Your task to perform on an android device: Open Amazon Image 0: 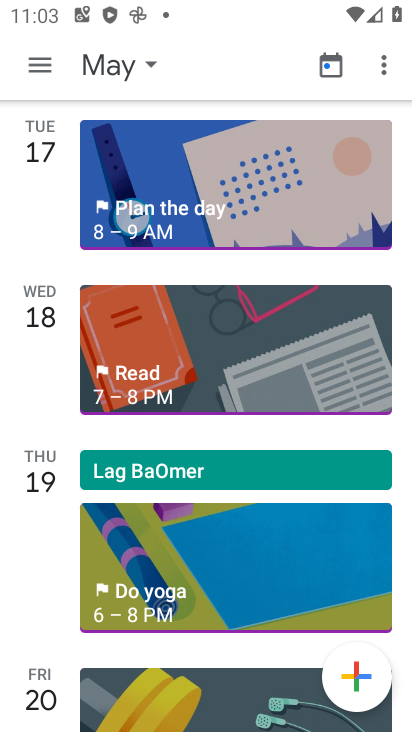
Step 0: press home button
Your task to perform on an android device: Open Amazon Image 1: 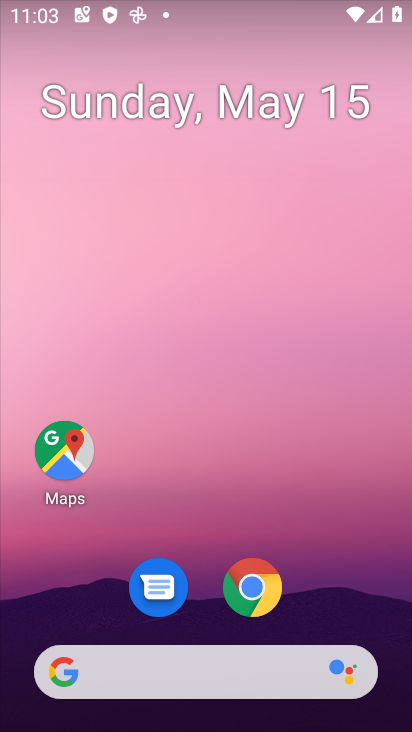
Step 1: drag from (387, 662) to (234, 35)
Your task to perform on an android device: Open Amazon Image 2: 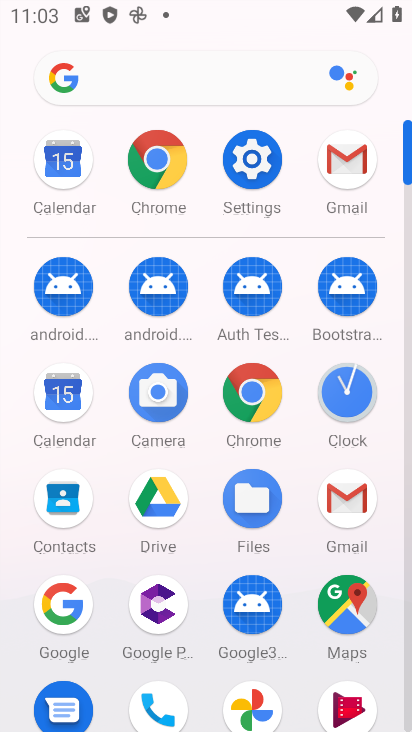
Step 2: click (246, 406)
Your task to perform on an android device: Open Amazon Image 3: 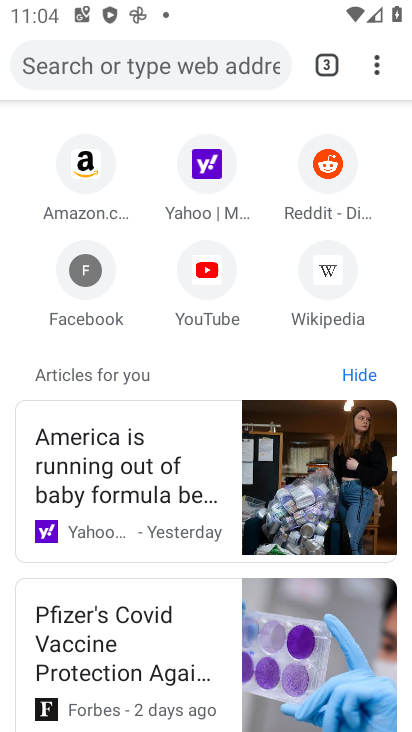
Step 3: click (87, 170)
Your task to perform on an android device: Open Amazon Image 4: 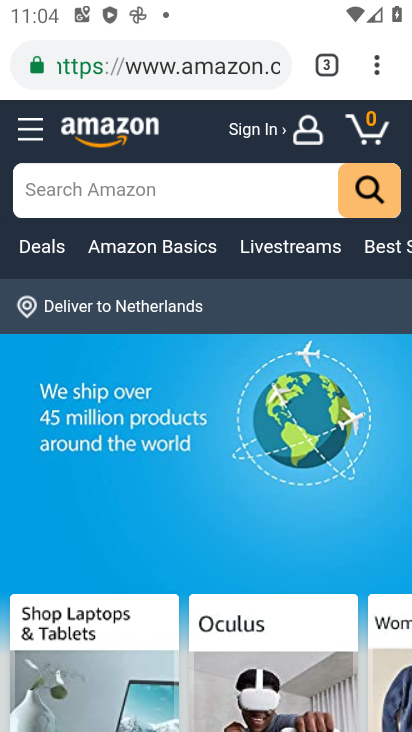
Step 4: task complete